Your task to perform on an android device: check battery use Image 0: 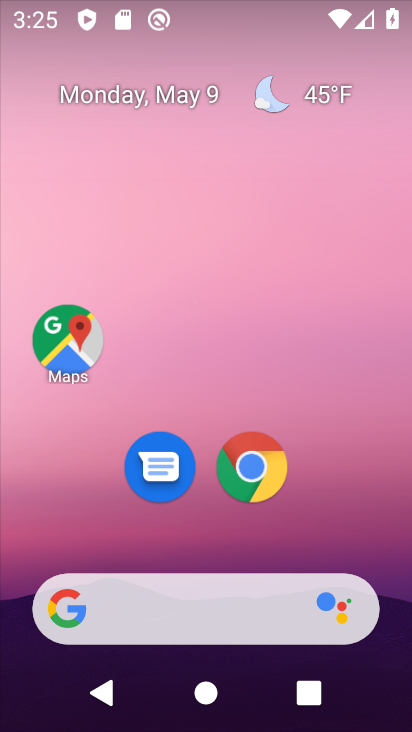
Step 0: drag from (322, 498) to (341, 114)
Your task to perform on an android device: check battery use Image 1: 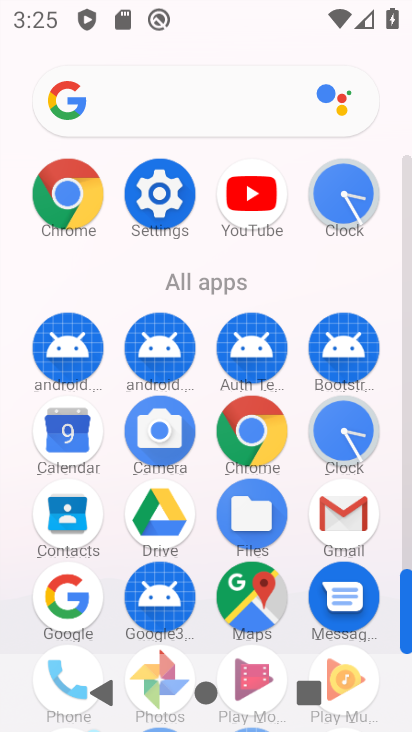
Step 1: click (143, 204)
Your task to perform on an android device: check battery use Image 2: 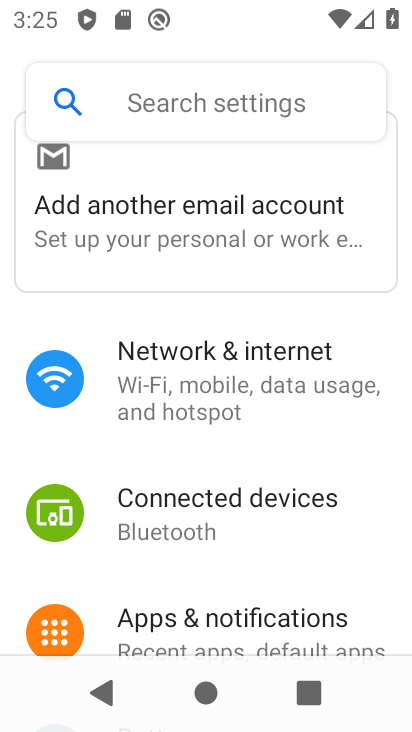
Step 2: drag from (286, 550) to (341, 277)
Your task to perform on an android device: check battery use Image 3: 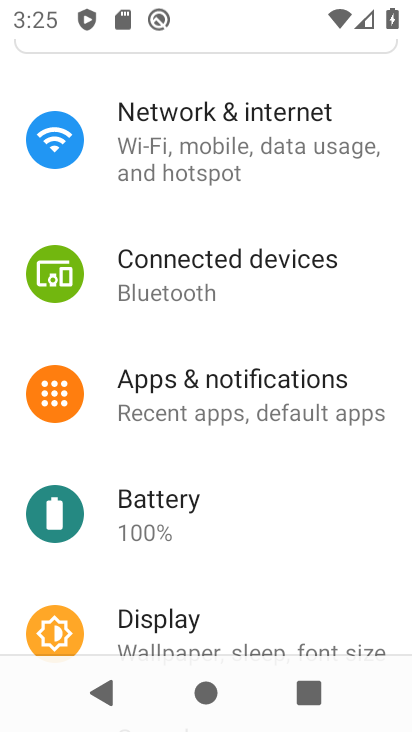
Step 3: drag from (271, 590) to (288, 427)
Your task to perform on an android device: check battery use Image 4: 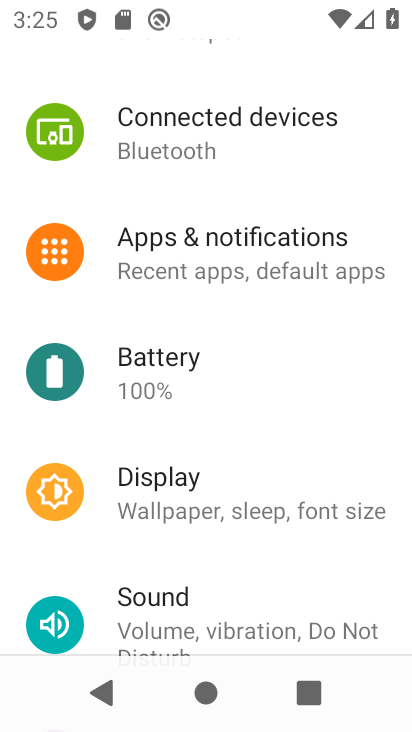
Step 4: click (192, 379)
Your task to perform on an android device: check battery use Image 5: 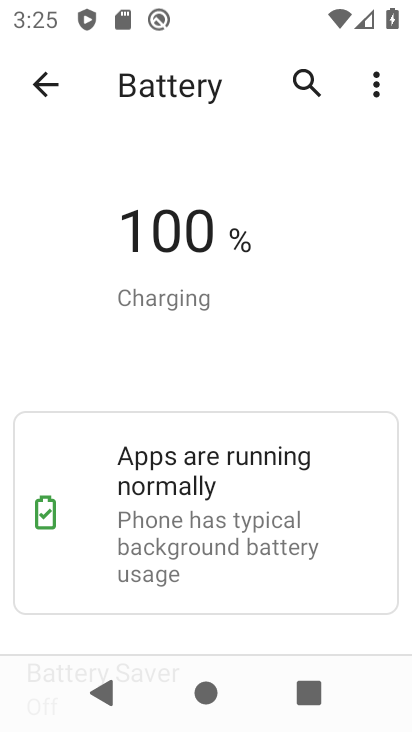
Step 5: task complete